Your task to perform on an android device: turn off priority inbox in the gmail app Image 0: 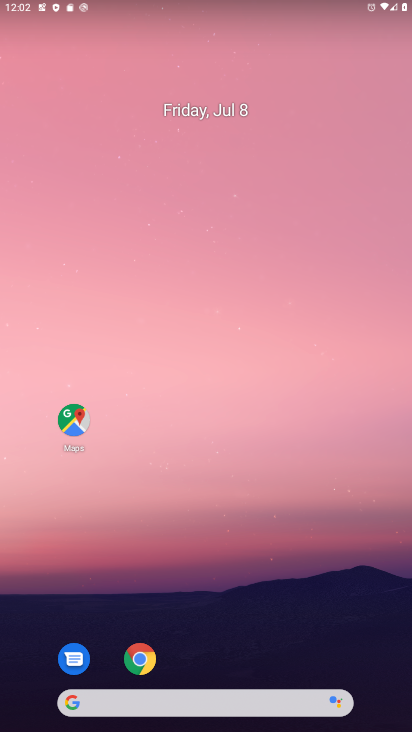
Step 0: drag from (269, 577) to (202, 177)
Your task to perform on an android device: turn off priority inbox in the gmail app Image 1: 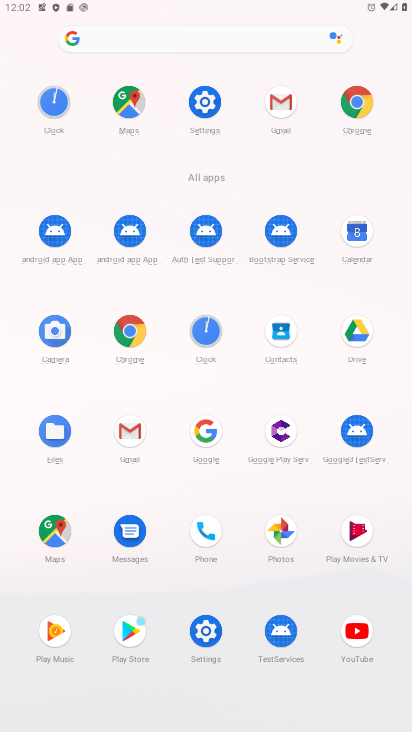
Step 1: click (278, 107)
Your task to perform on an android device: turn off priority inbox in the gmail app Image 2: 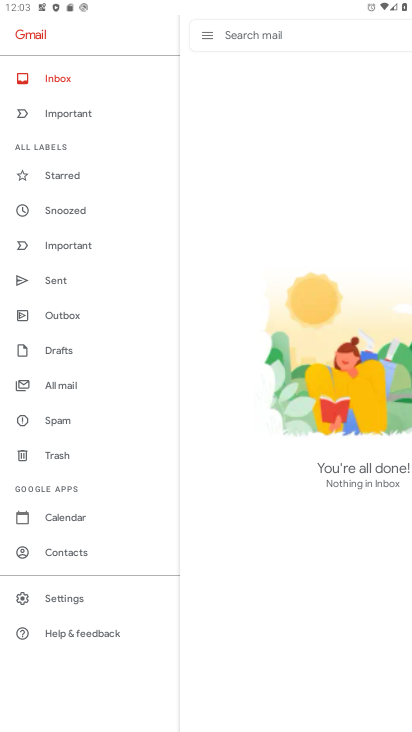
Step 2: click (62, 597)
Your task to perform on an android device: turn off priority inbox in the gmail app Image 3: 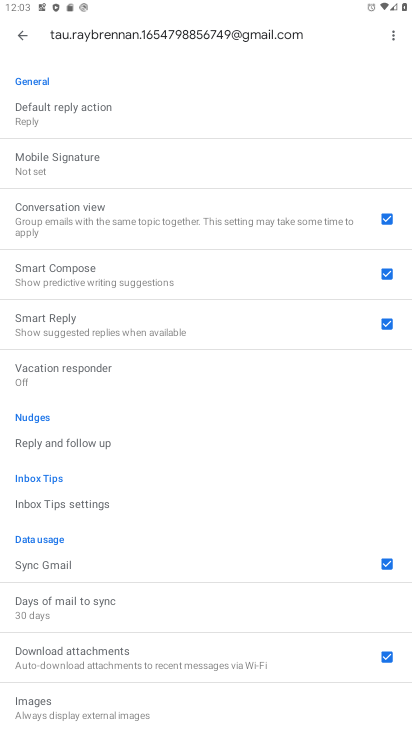
Step 3: drag from (206, 144) to (183, 377)
Your task to perform on an android device: turn off priority inbox in the gmail app Image 4: 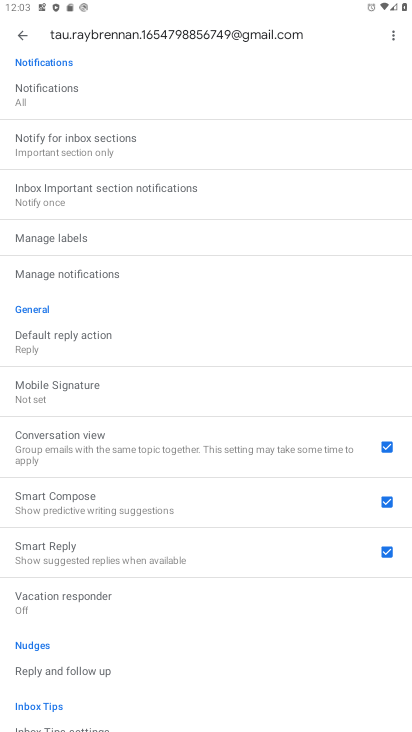
Step 4: click (21, 34)
Your task to perform on an android device: turn off priority inbox in the gmail app Image 5: 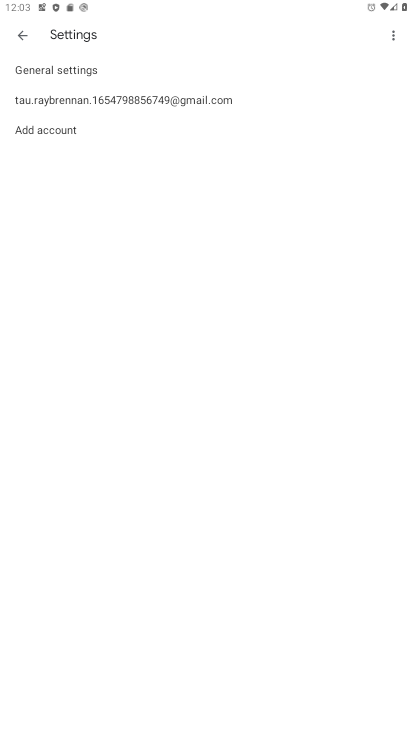
Step 5: click (60, 109)
Your task to perform on an android device: turn off priority inbox in the gmail app Image 6: 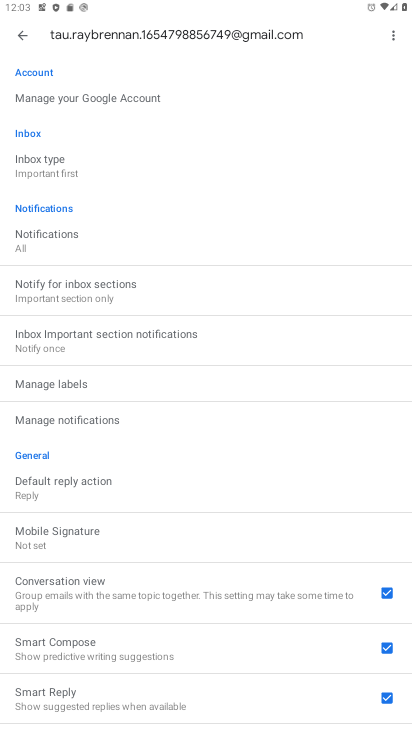
Step 6: click (49, 159)
Your task to perform on an android device: turn off priority inbox in the gmail app Image 7: 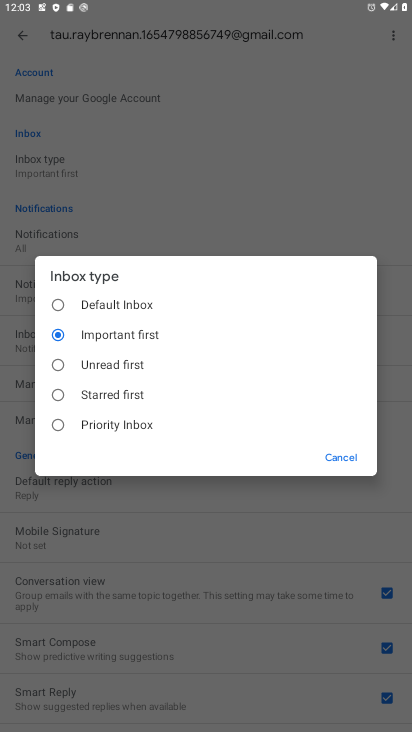
Step 7: task complete